Your task to perform on an android device: change the clock display to show seconds Image 0: 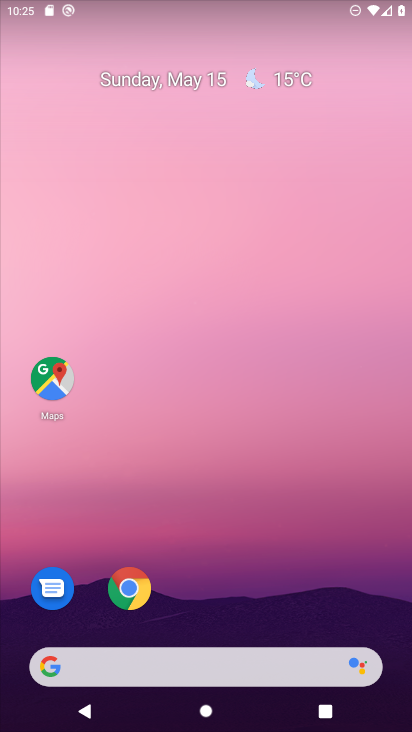
Step 0: drag from (260, 614) to (309, 248)
Your task to perform on an android device: change the clock display to show seconds Image 1: 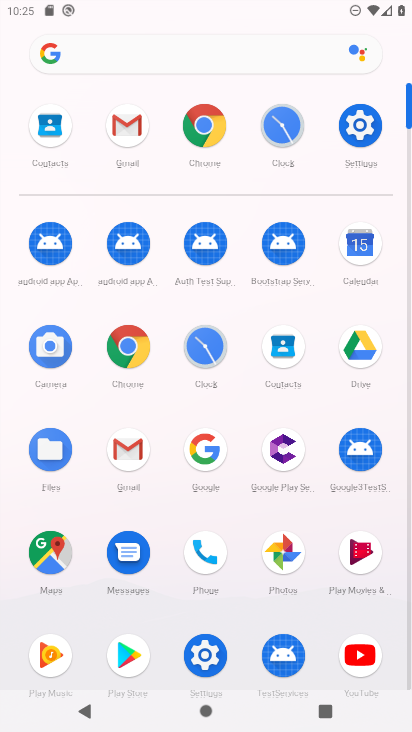
Step 1: click (206, 363)
Your task to perform on an android device: change the clock display to show seconds Image 2: 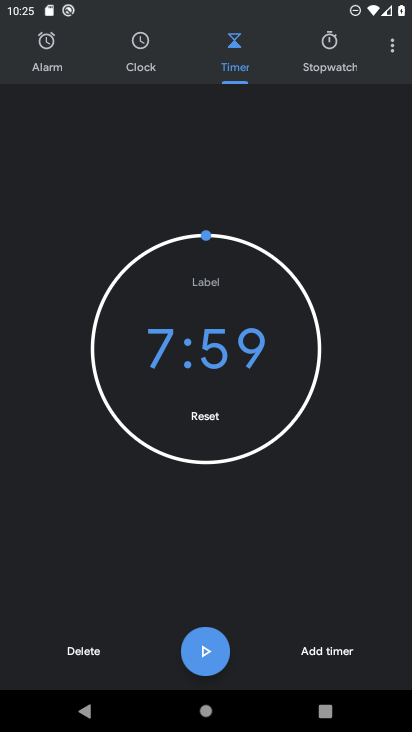
Step 2: click (388, 52)
Your task to perform on an android device: change the clock display to show seconds Image 3: 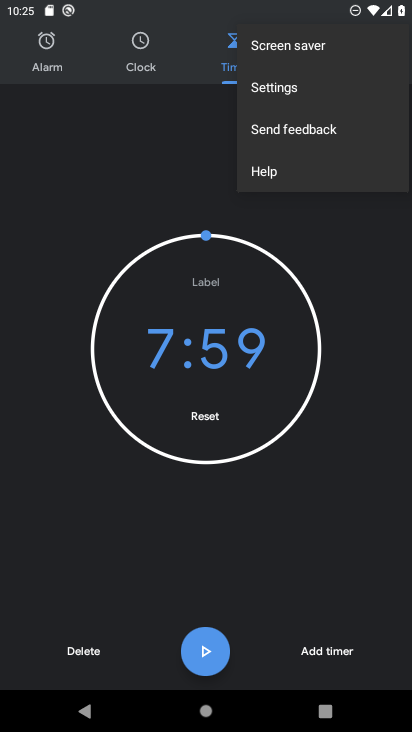
Step 3: click (282, 90)
Your task to perform on an android device: change the clock display to show seconds Image 4: 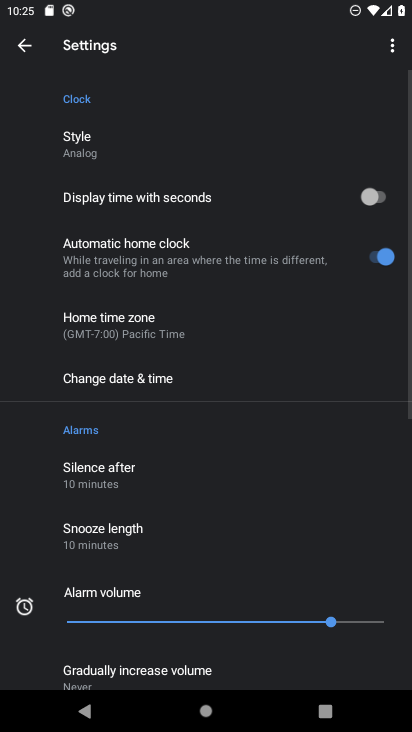
Step 4: click (108, 143)
Your task to perform on an android device: change the clock display to show seconds Image 5: 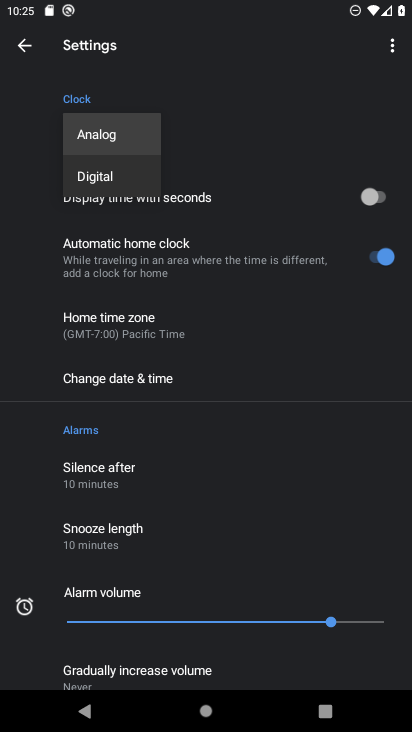
Step 5: click (127, 173)
Your task to perform on an android device: change the clock display to show seconds Image 6: 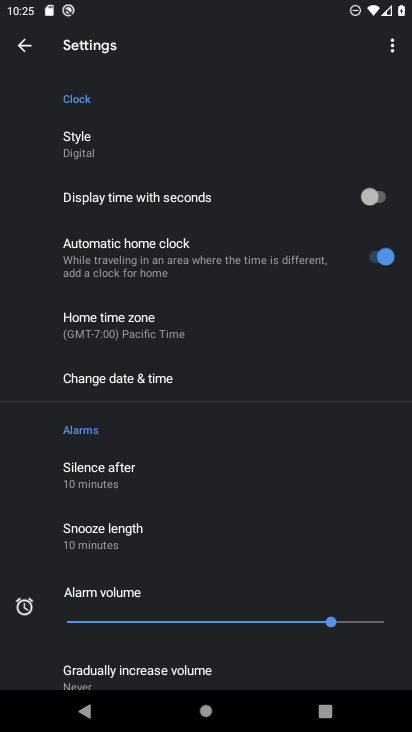
Step 6: click (386, 196)
Your task to perform on an android device: change the clock display to show seconds Image 7: 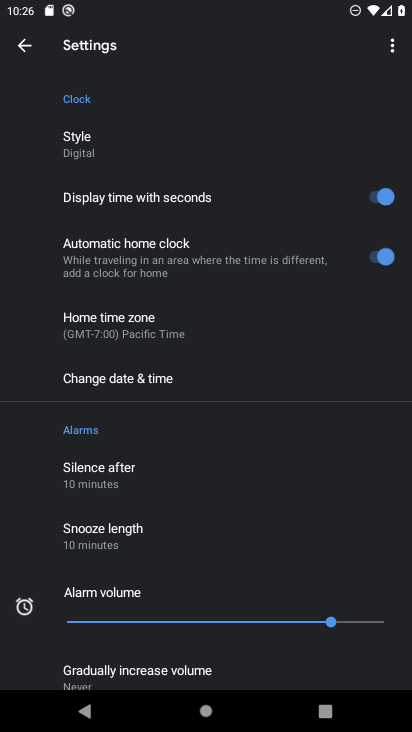
Step 7: task complete